Your task to perform on an android device: Open Yahoo.com Image 0: 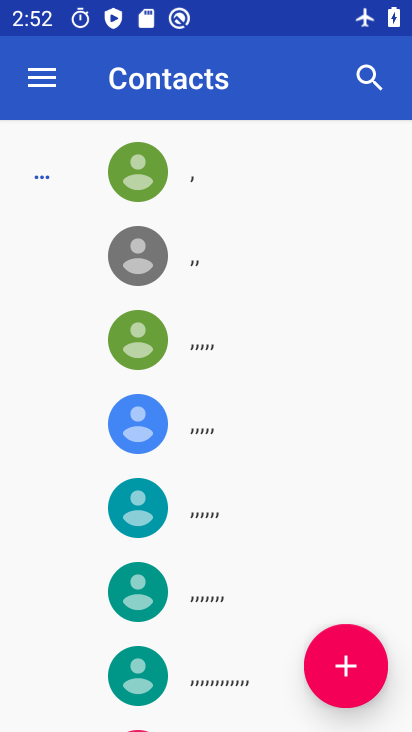
Step 0: press home button
Your task to perform on an android device: Open Yahoo.com Image 1: 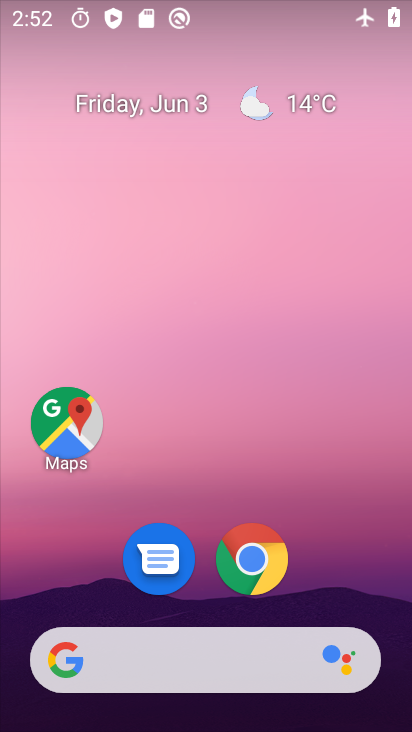
Step 1: click (246, 553)
Your task to perform on an android device: Open Yahoo.com Image 2: 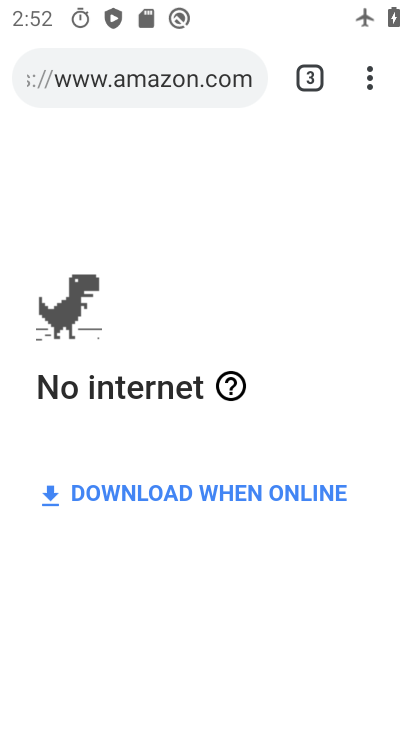
Step 2: click (324, 78)
Your task to perform on an android device: Open Yahoo.com Image 3: 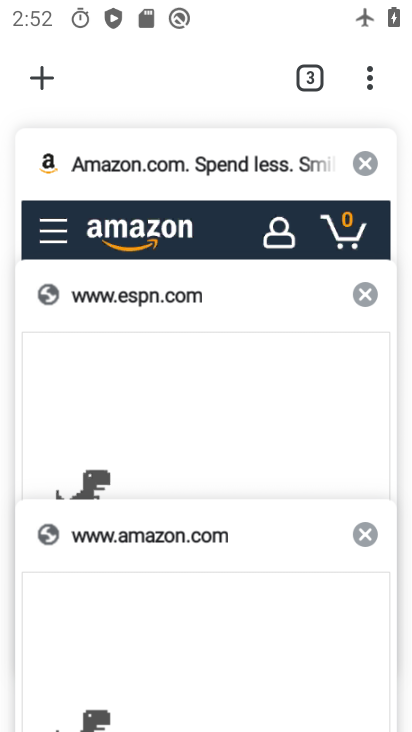
Step 3: click (46, 72)
Your task to perform on an android device: Open Yahoo.com Image 4: 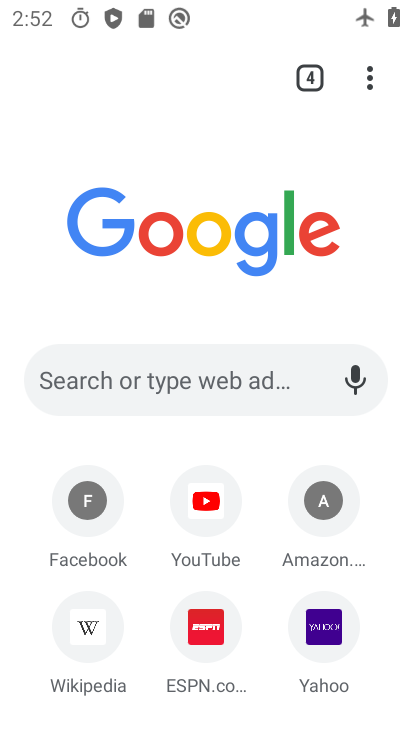
Step 4: click (311, 637)
Your task to perform on an android device: Open Yahoo.com Image 5: 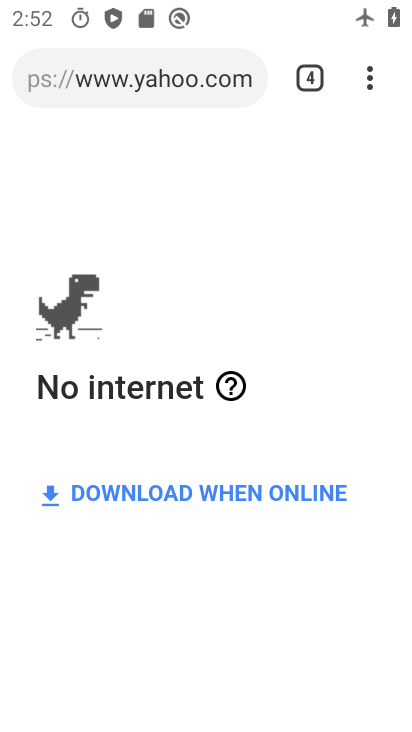
Step 5: task complete